Your task to perform on an android device: add a label to a message in the gmail app Image 0: 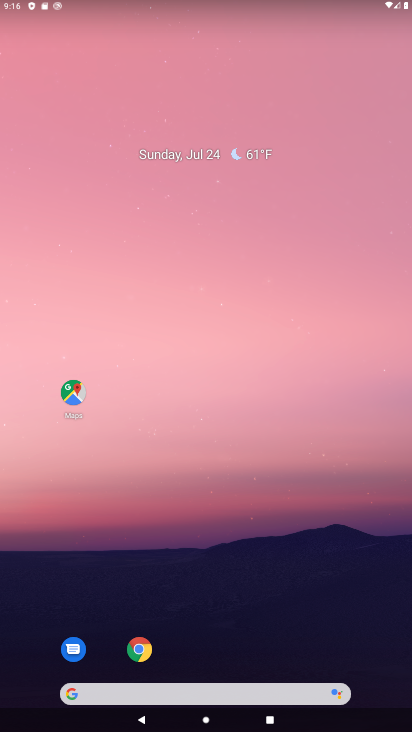
Step 0: click (287, 42)
Your task to perform on an android device: add a label to a message in the gmail app Image 1: 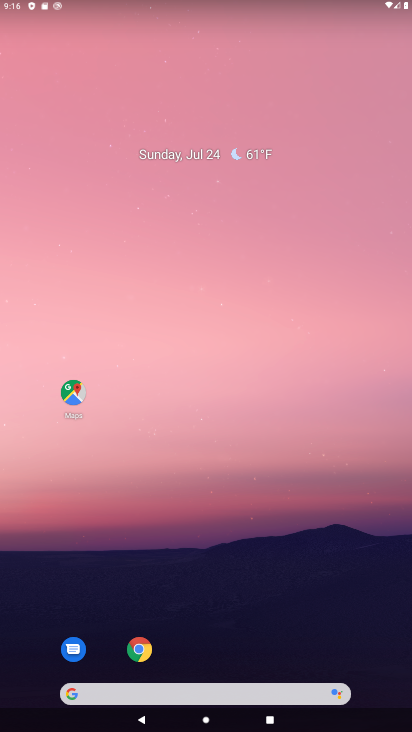
Step 1: drag from (289, 649) to (224, 76)
Your task to perform on an android device: add a label to a message in the gmail app Image 2: 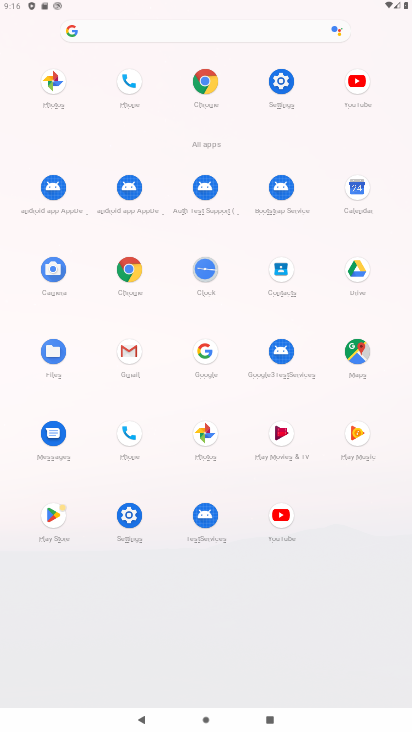
Step 2: click (129, 363)
Your task to perform on an android device: add a label to a message in the gmail app Image 3: 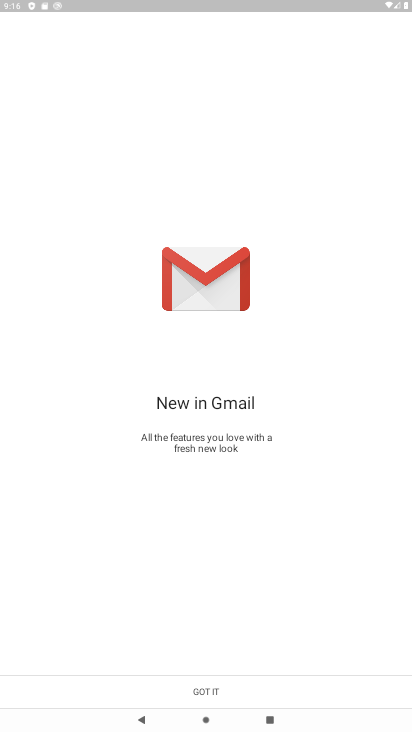
Step 3: click (224, 687)
Your task to perform on an android device: add a label to a message in the gmail app Image 4: 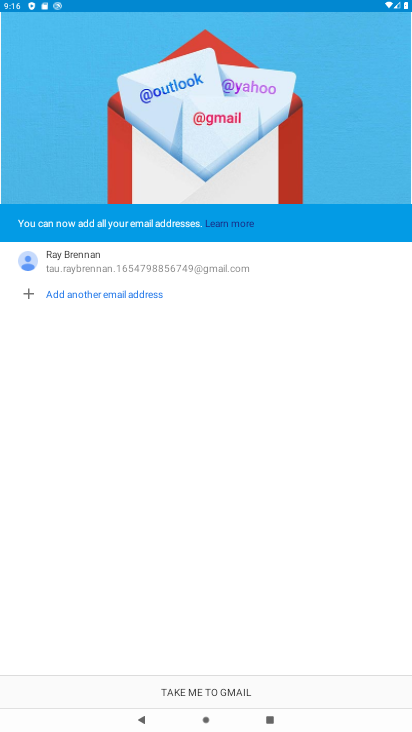
Step 4: click (217, 698)
Your task to perform on an android device: add a label to a message in the gmail app Image 5: 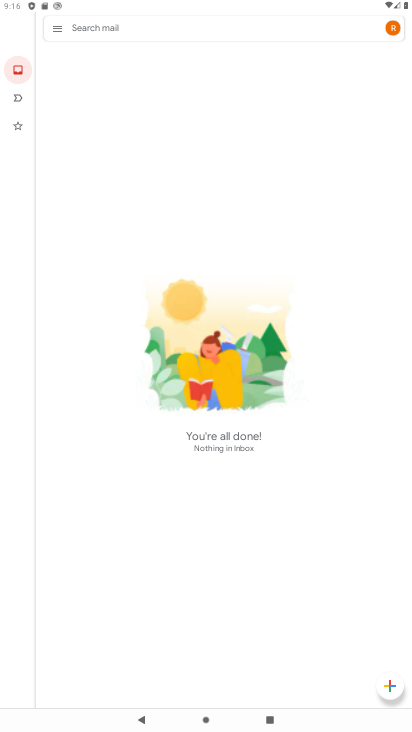
Step 5: click (53, 28)
Your task to perform on an android device: add a label to a message in the gmail app Image 6: 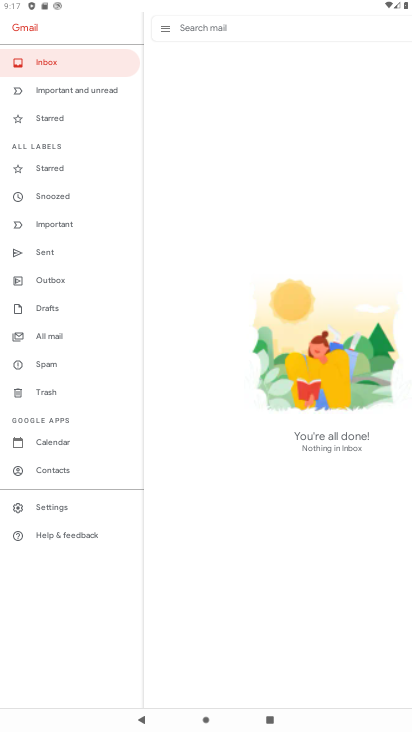
Step 6: task complete